Your task to perform on an android device: Open Youtube and go to "Your channel" Image 0: 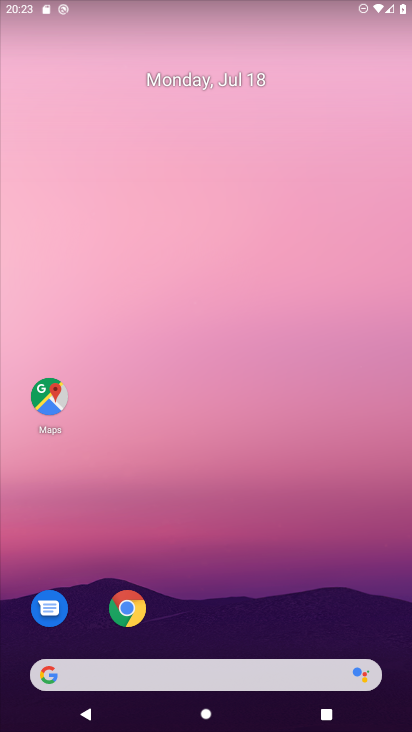
Step 0: drag from (222, 625) to (253, 136)
Your task to perform on an android device: Open Youtube and go to "Your channel" Image 1: 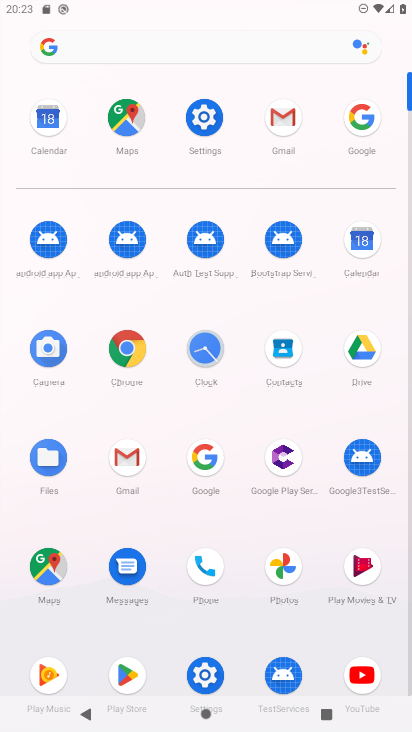
Step 1: click (360, 673)
Your task to perform on an android device: Open Youtube and go to "Your channel" Image 2: 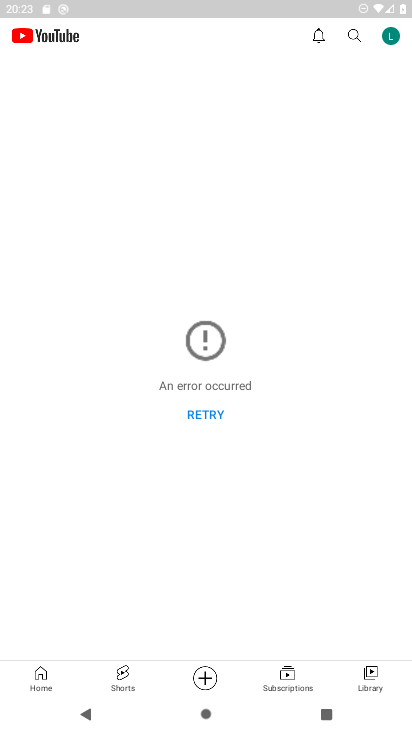
Step 2: click (388, 35)
Your task to perform on an android device: Open Youtube and go to "Your channel" Image 3: 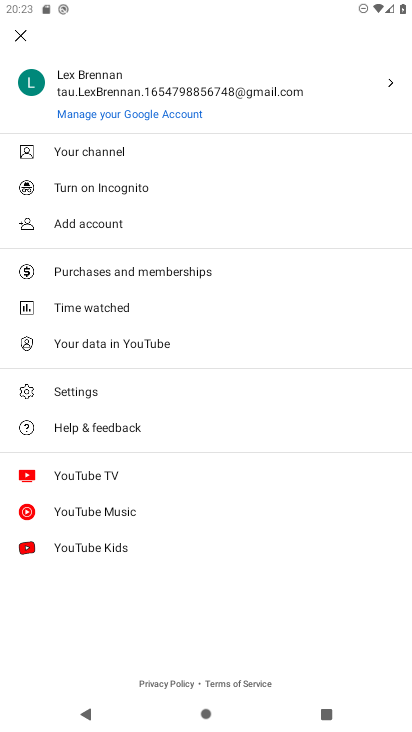
Step 3: click (59, 153)
Your task to perform on an android device: Open Youtube and go to "Your channel" Image 4: 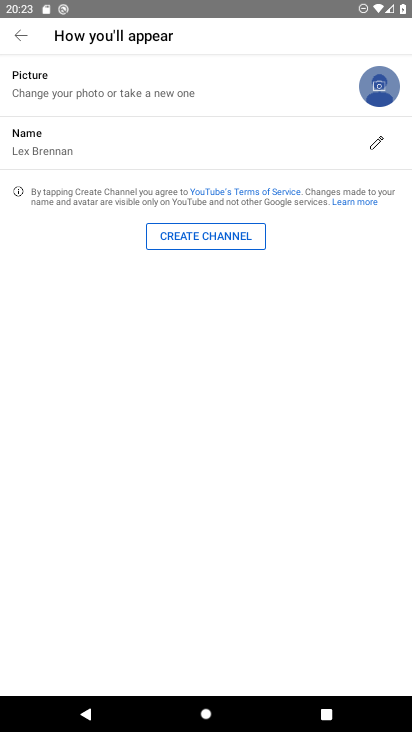
Step 4: task complete